Your task to perform on an android device: Open Android settings Image 0: 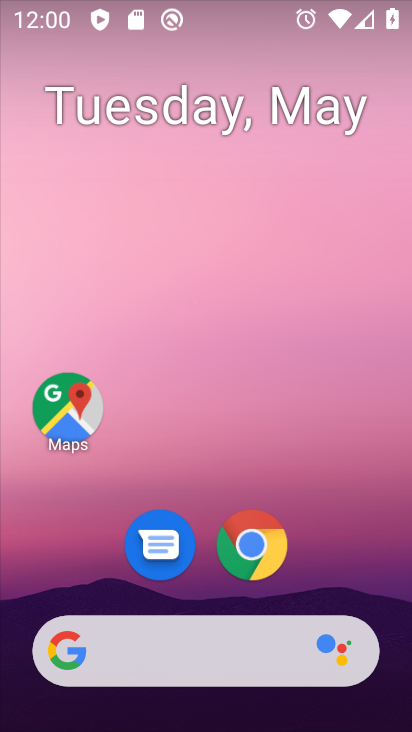
Step 0: drag from (348, 367) to (349, 317)
Your task to perform on an android device: Open Android settings Image 1: 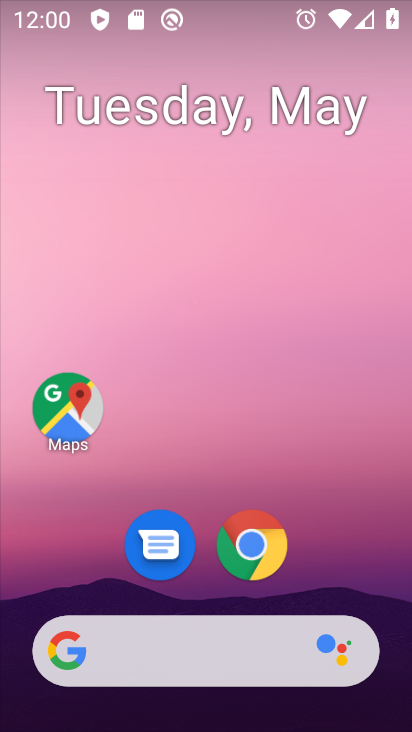
Step 1: drag from (362, 557) to (377, 339)
Your task to perform on an android device: Open Android settings Image 2: 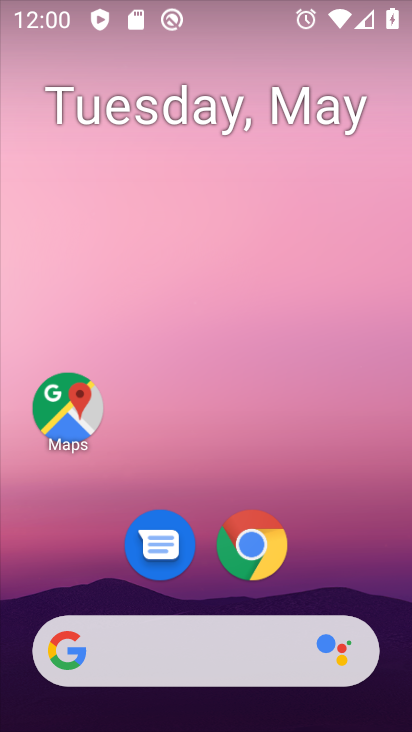
Step 2: drag from (319, 545) to (331, 338)
Your task to perform on an android device: Open Android settings Image 3: 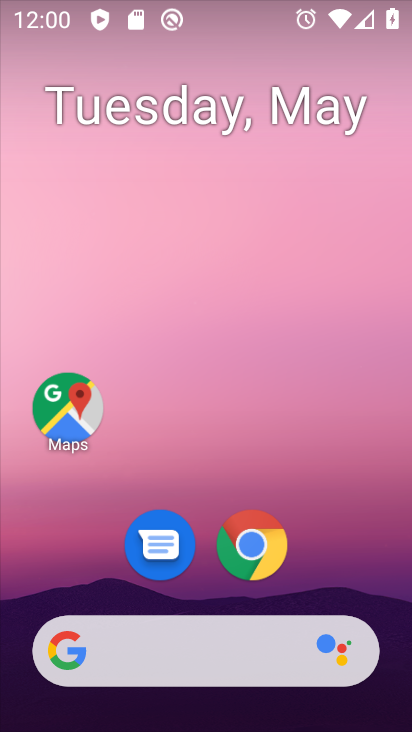
Step 3: drag from (394, 691) to (387, 223)
Your task to perform on an android device: Open Android settings Image 4: 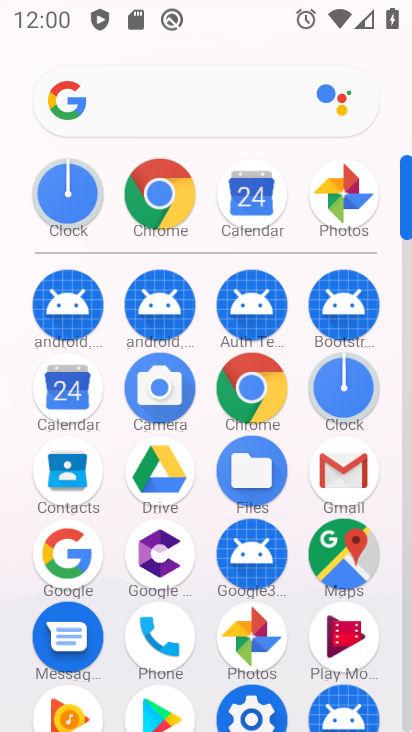
Step 4: drag from (292, 646) to (291, 309)
Your task to perform on an android device: Open Android settings Image 5: 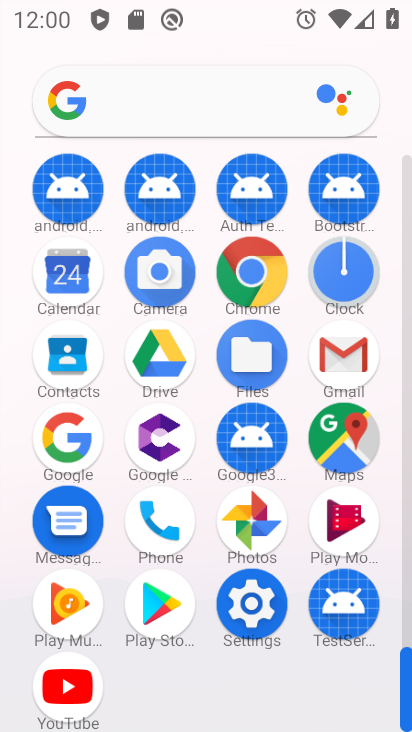
Step 5: click (272, 604)
Your task to perform on an android device: Open Android settings Image 6: 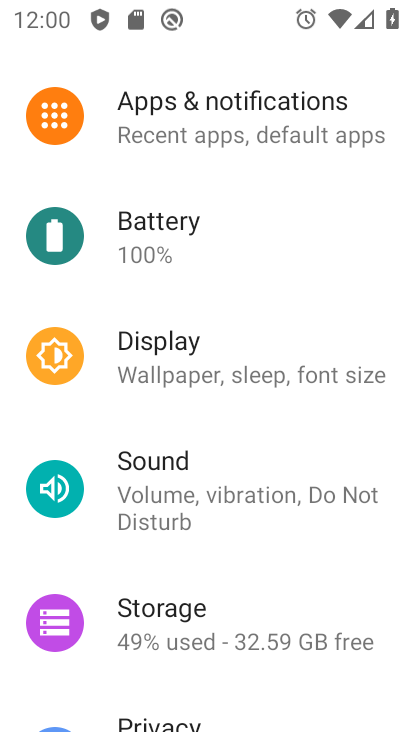
Step 6: task complete